Your task to perform on an android device: Is it going to rain this weekend? Image 0: 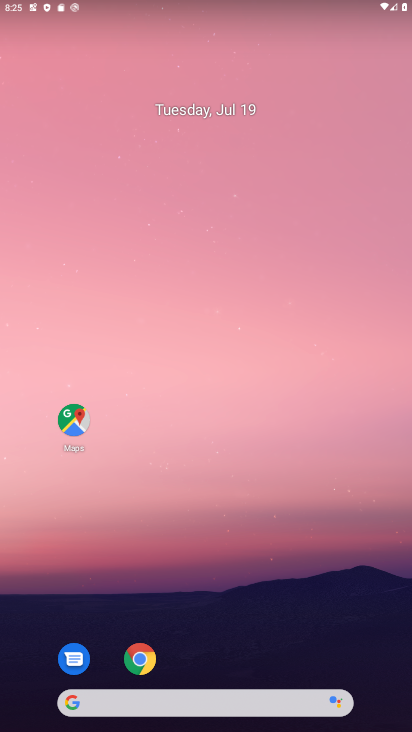
Step 0: drag from (237, 679) to (273, 443)
Your task to perform on an android device: Is it going to rain this weekend? Image 1: 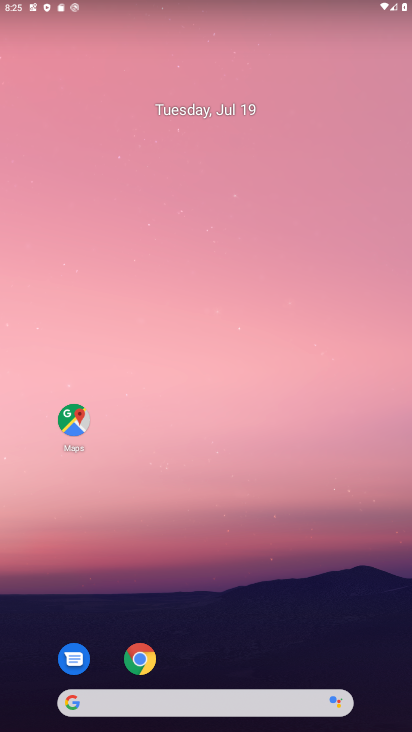
Step 1: drag from (225, 679) to (391, 84)
Your task to perform on an android device: Is it going to rain this weekend? Image 2: 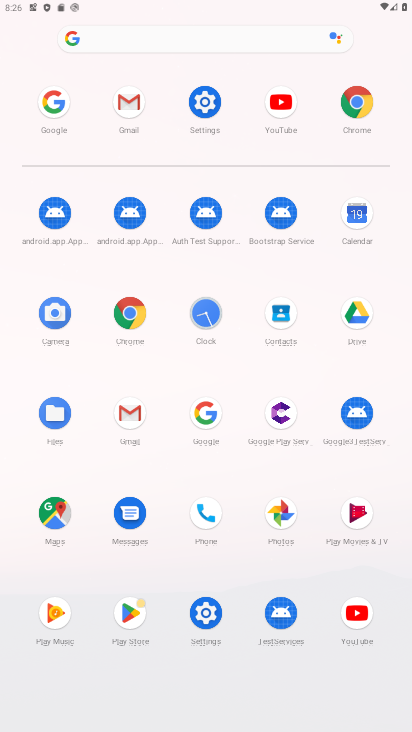
Step 2: click (200, 405)
Your task to perform on an android device: Is it going to rain this weekend? Image 3: 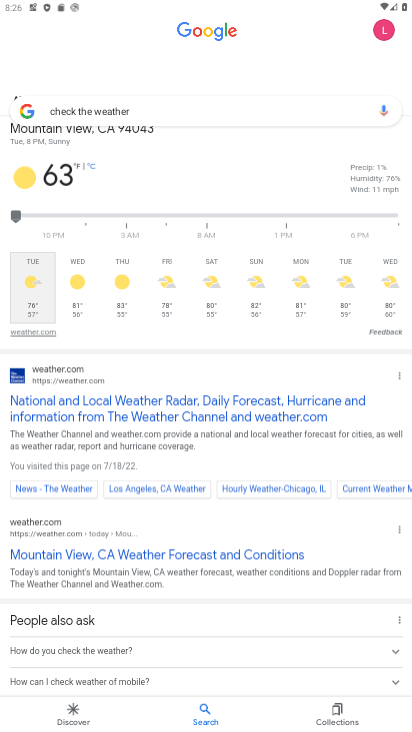
Step 3: click (202, 108)
Your task to perform on an android device: Is it going to rain this weekend? Image 4: 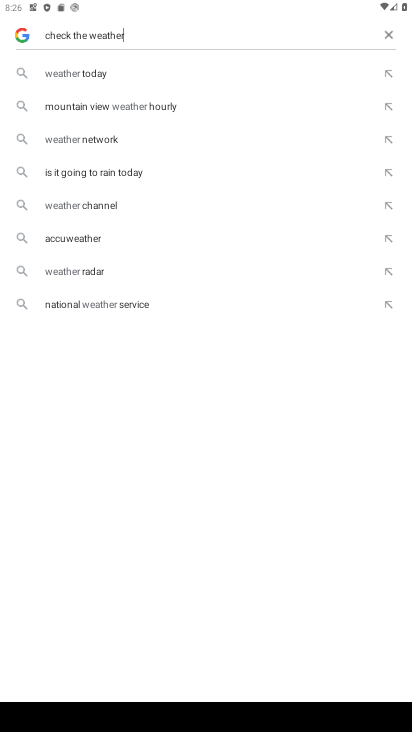
Step 4: click (381, 32)
Your task to perform on an android device: Is it going to rain this weekend? Image 5: 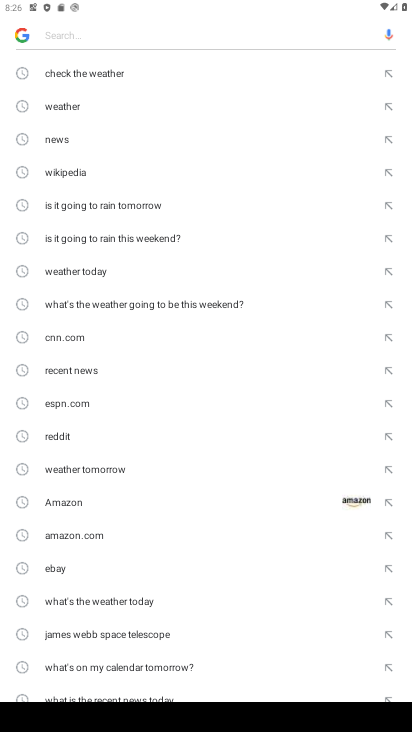
Step 5: click (141, 238)
Your task to perform on an android device: Is it going to rain this weekend? Image 6: 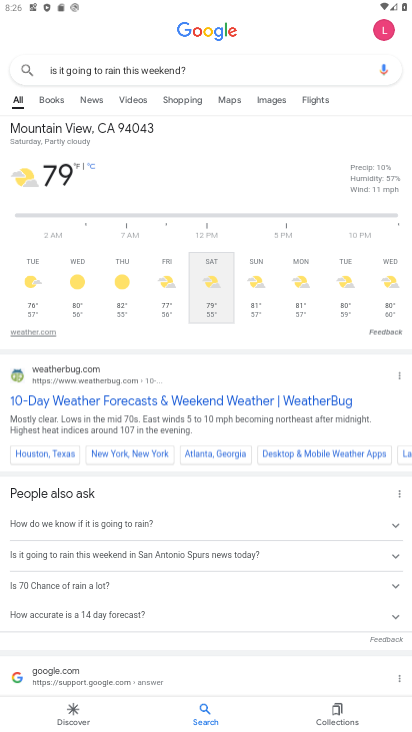
Step 6: task complete